Your task to perform on an android device: allow cookies in the chrome app Image 0: 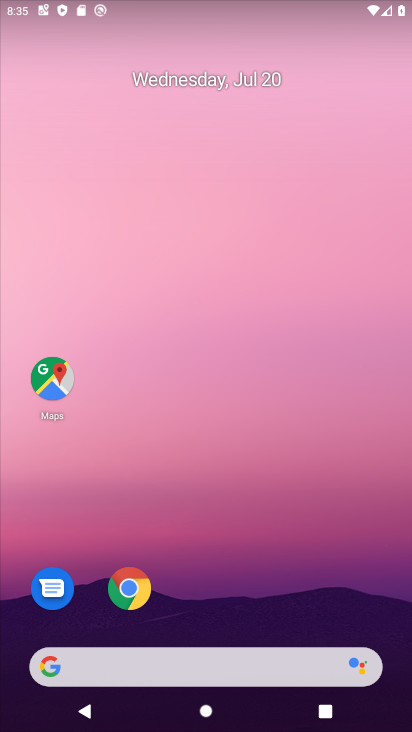
Step 0: click (137, 575)
Your task to perform on an android device: allow cookies in the chrome app Image 1: 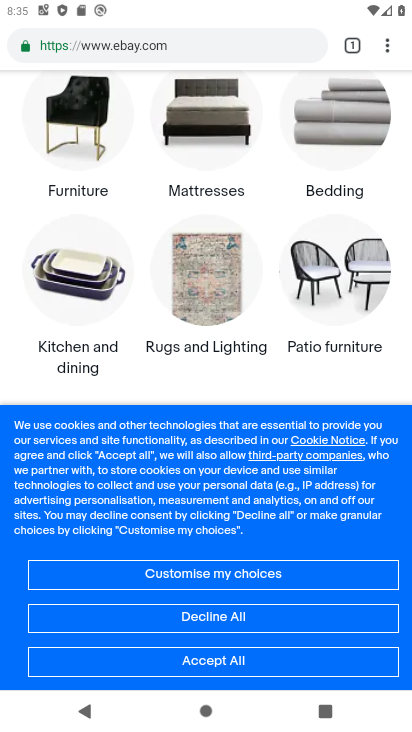
Step 1: click (403, 41)
Your task to perform on an android device: allow cookies in the chrome app Image 2: 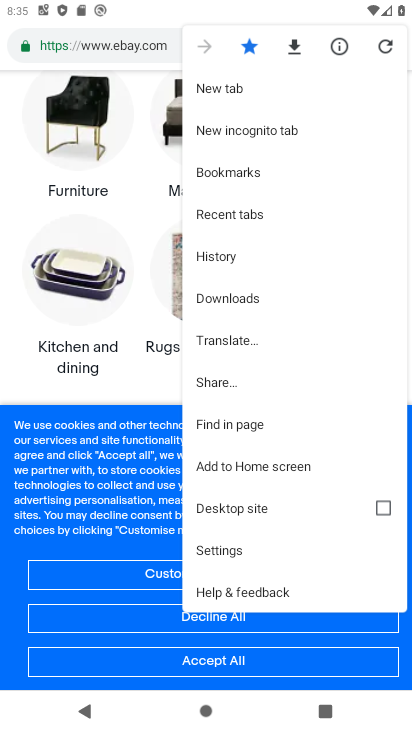
Step 2: click (245, 551)
Your task to perform on an android device: allow cookies in the chrome app Image 3: 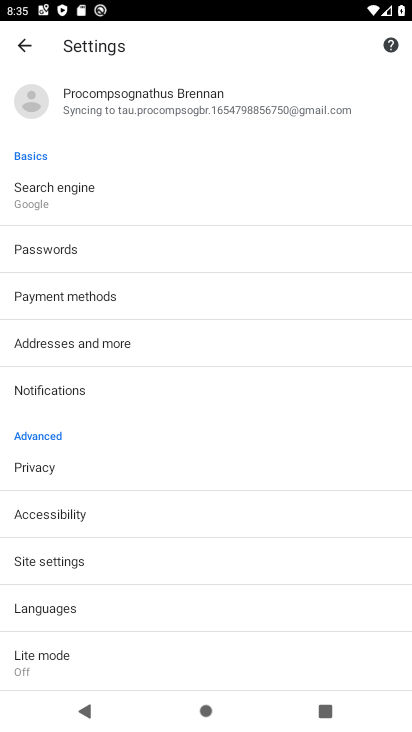
Step 3: click (105, 562)
Your task to perform on an android device: allow cookies in the chrome app Image 4: 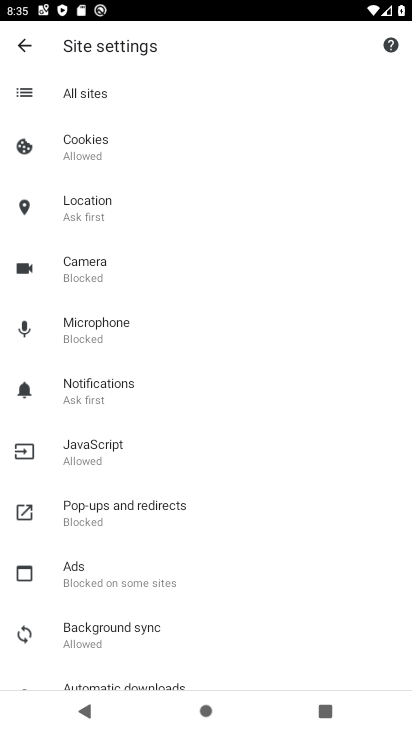
Step 4: click (128, 153)
Your task to perform on an android device: allow cookies in the chrome app Image 5: 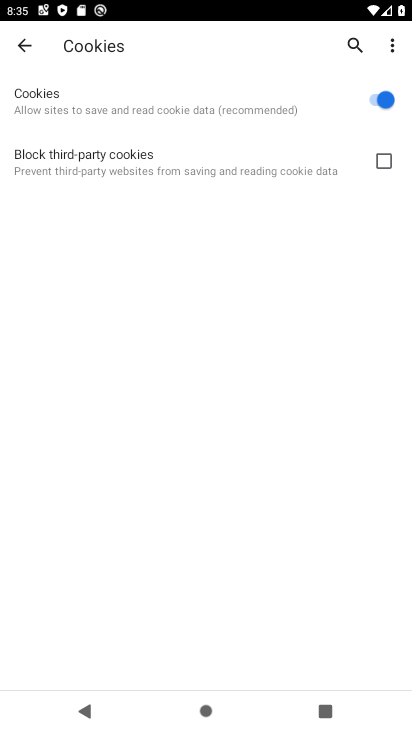
Step 5: task complete